Your task to perform on an android device: turn off notifications in google photos Image 0: 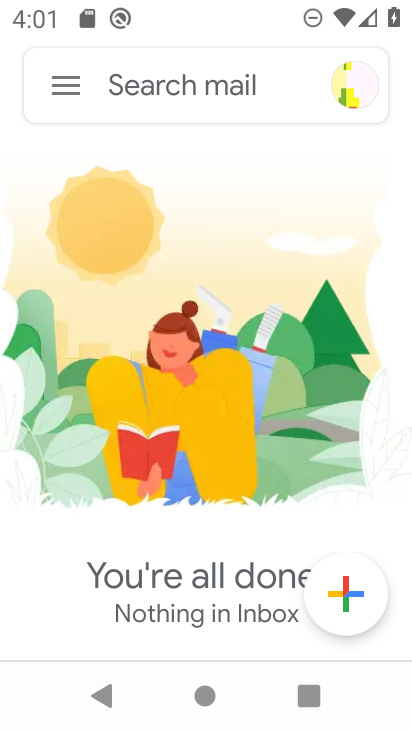
Step 0: click (79, 94)
Your task to perform on an android device: turn off notifications in google photos Image 1: 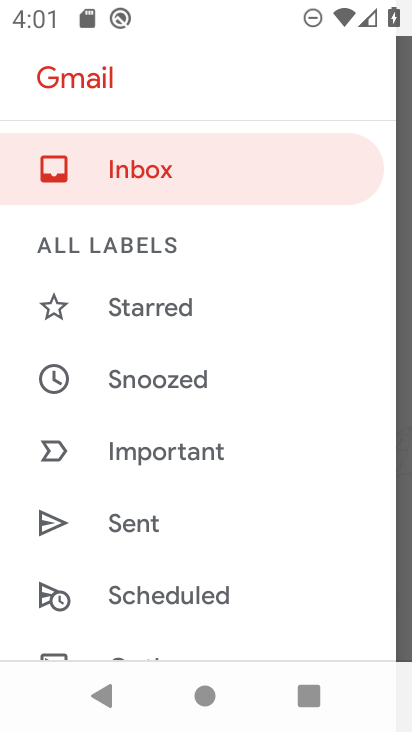
Step 1: press home button
Your task to perform on an android device: turn off notifications in google photos Image 2: 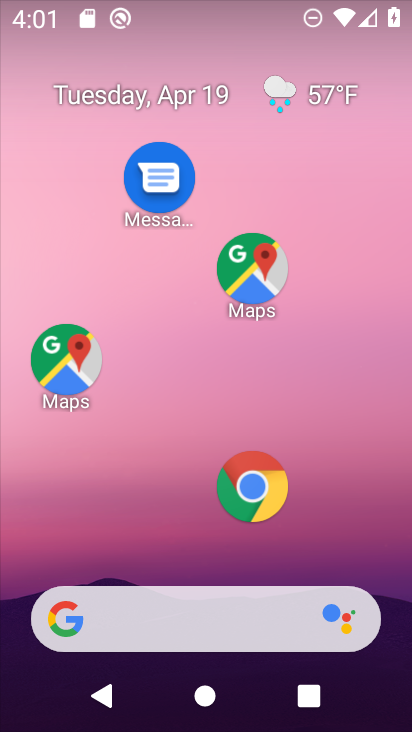
Step 2: drag from (202, 535) to (244, 125)
Your task to perform on an android device: turn off notifications in google photos Image 3: 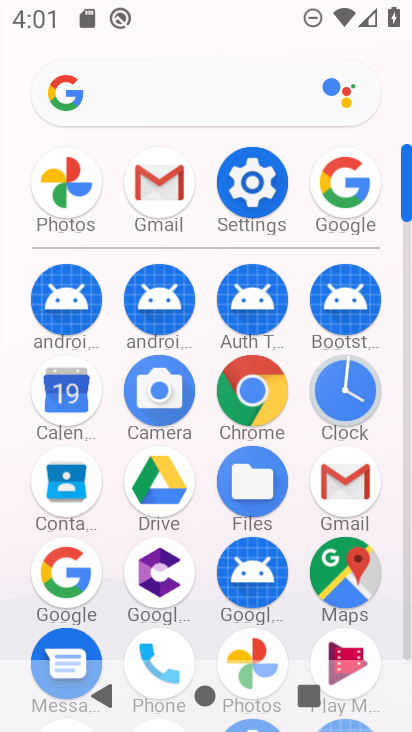
Step 3: click (76, 219)
Your task to perform on an android device: turn off notifications in google photos Image 4: 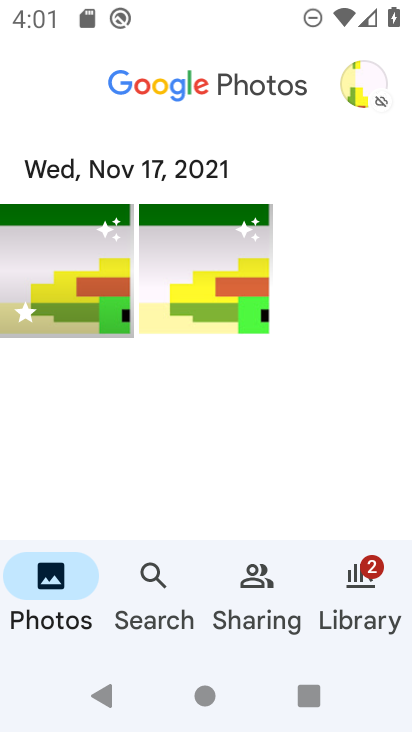
Step 4: click (372, 94)
Your task to perform on an android device: turn off notifications in google photos Image 5: 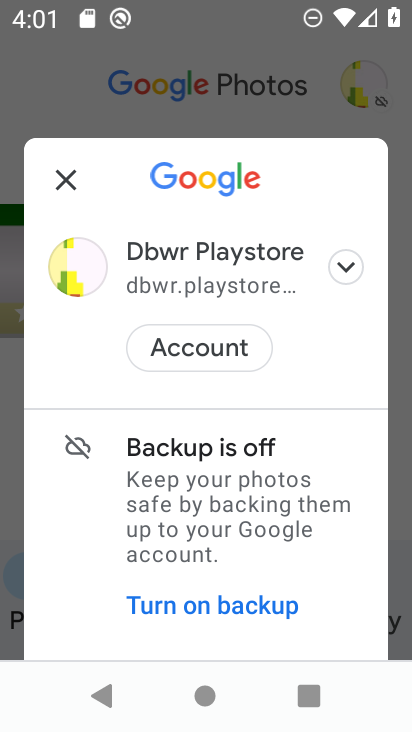
Step 5: drag from (257, 464) to (293, 191)
Your task to perform on an android device: turn off notifications in google photos Image 6: 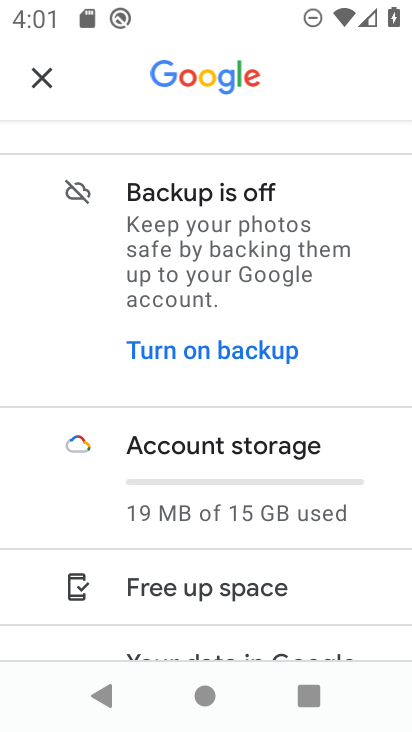
Step 6: drag from (262, 383) to (307, 209)
Your task to perform on an android device: turn off notifications in google photos Image 7: 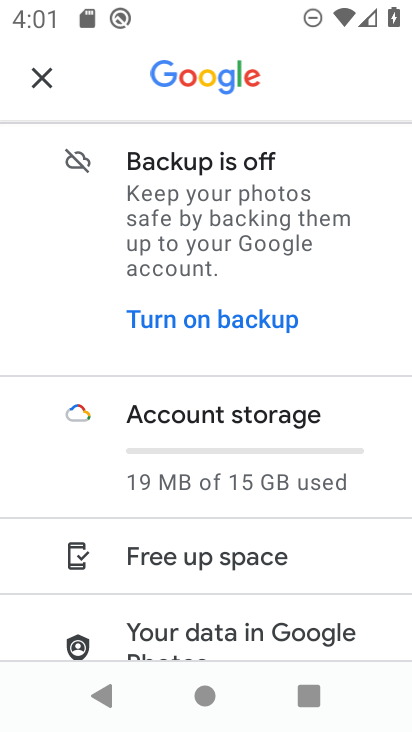
Step 7: drag from (239, 528) to (300, 189)
Your task to perform on an android device: turn off notifications in google photos Image 8: 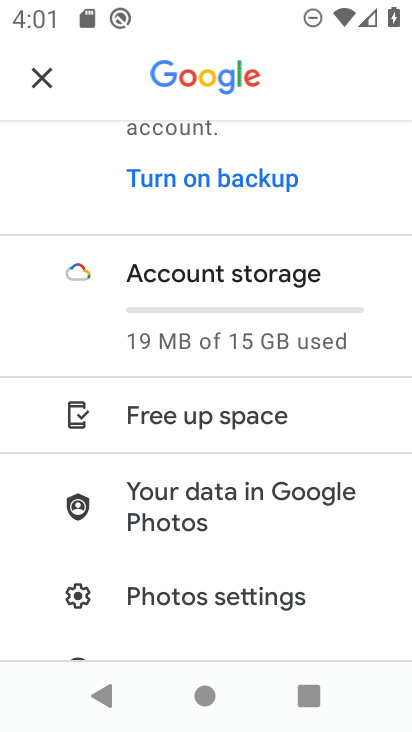
Step 8: click (255, 596)
Your task to perform on an android device: turn off notifications in google photos Image 9: 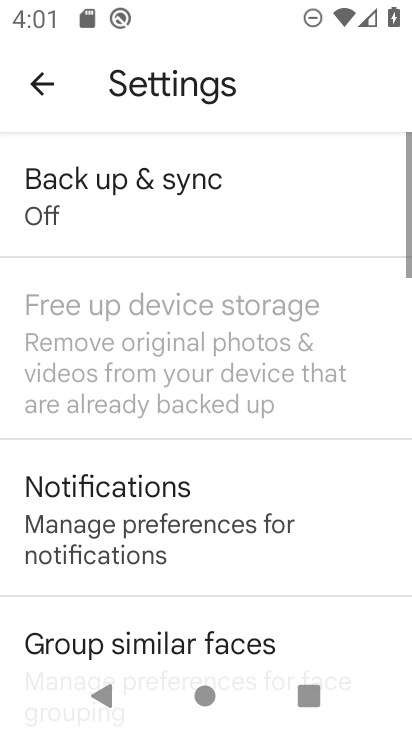
Step 9: click (222, 538)
Your task to perform on an android device: turn off notifications in google photos Image 10: 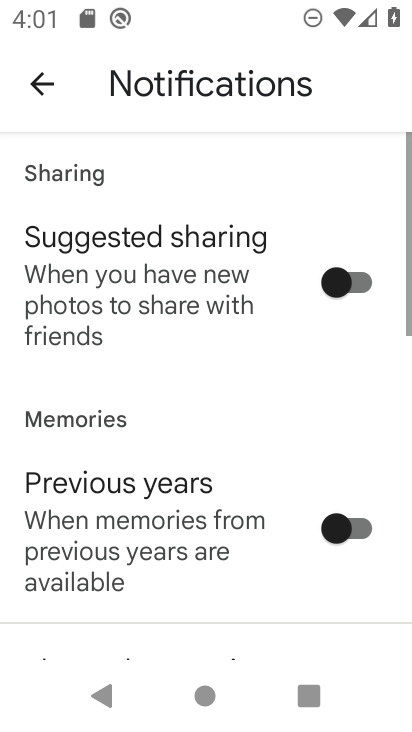
Step 10: drag from (222, 537) to (269, 241)
Your task to perform on an android device: turn off notifications in google photos Image 11: 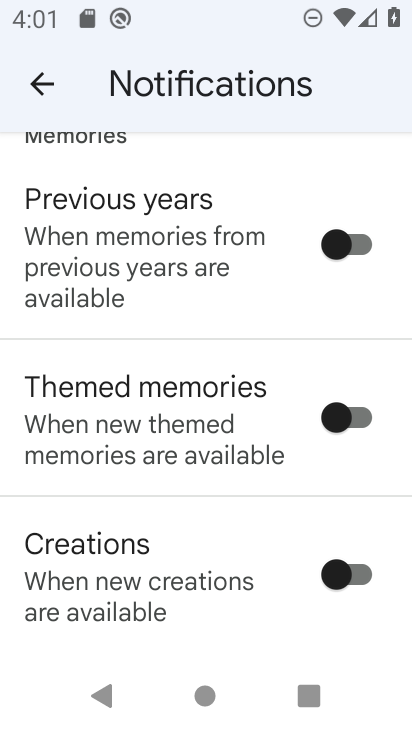
Step 11: drag from (252, 454) to (327, 146)
Your task to perform on an android device: turn off notifications in google photos Image 12: 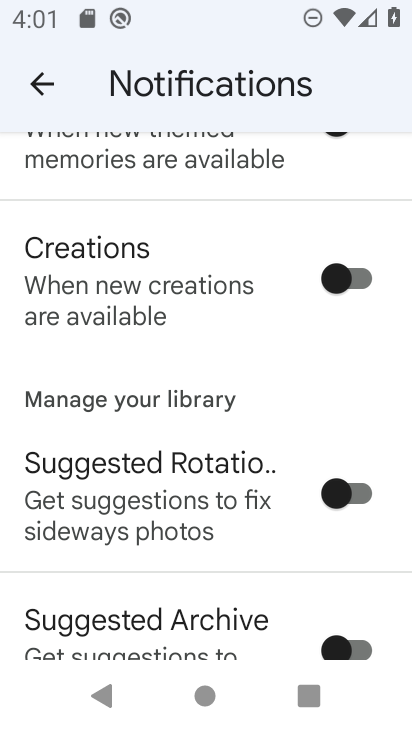
Step 12: drag from (256, 555) to (298, 178)
Your task to perform on an android device: turn off notifications in google photos Image 13: 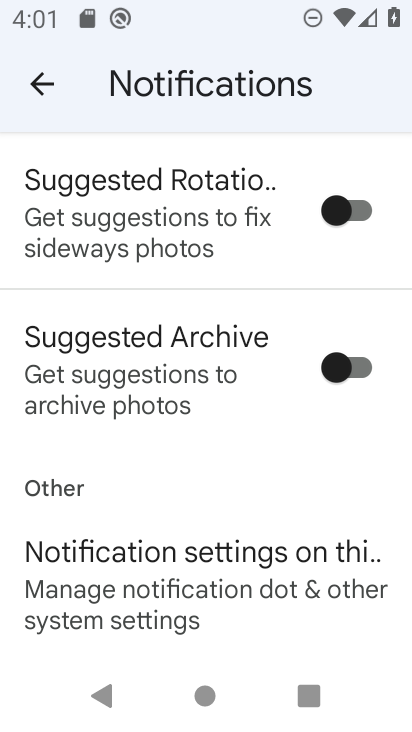
Step 13: click (231, 577)
Your task to perform on an android device: turn off notifications in google photos Image 14: 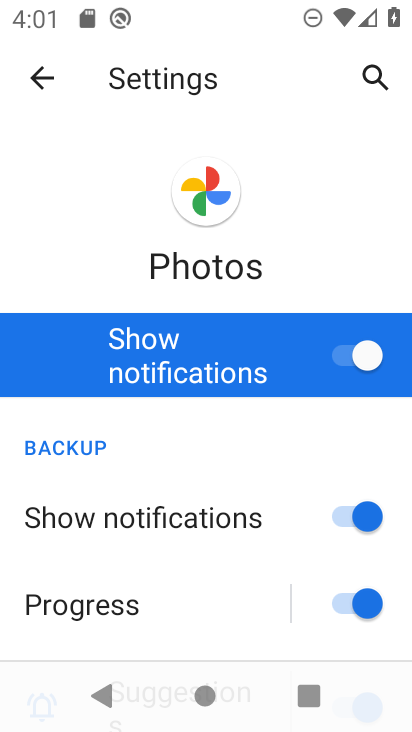
Step 14: click (343, 356)
Your task to perform on an android device: turn off notifications in google photos Image 15: 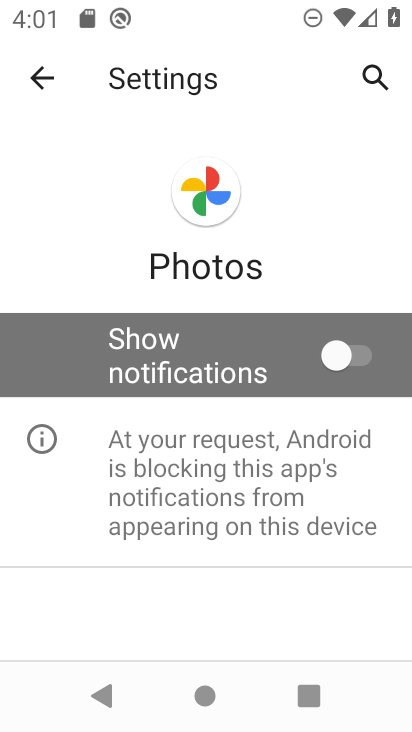
Step 15: task complete